Your task to perform on an android device: Open calendar and show me the second week of next month Image 0: 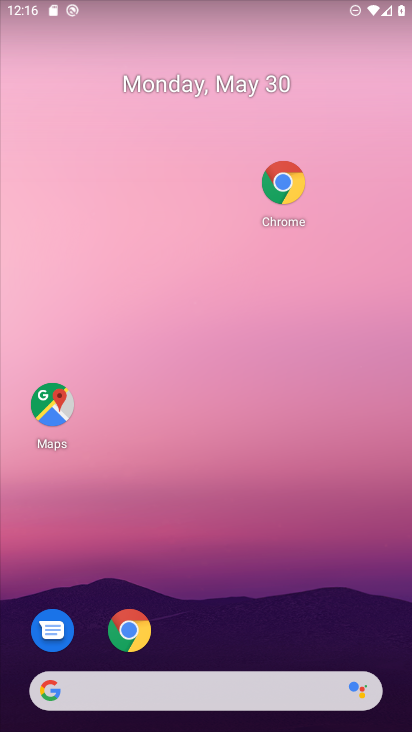
Step 0: drag from (287, 683) to (161, 216)
Your task to perform on an android device: Open calendar and show me the second week of next month Image 1: 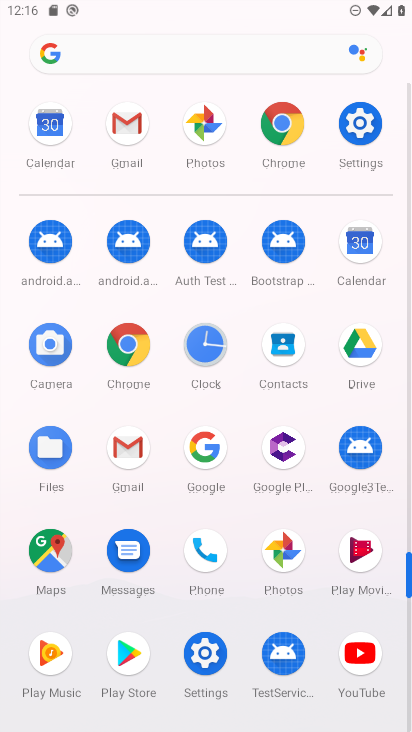
Step 1: click (366, 245)
Your task to perform on an android device: Open calendar and show me the second week of next month Image 2: 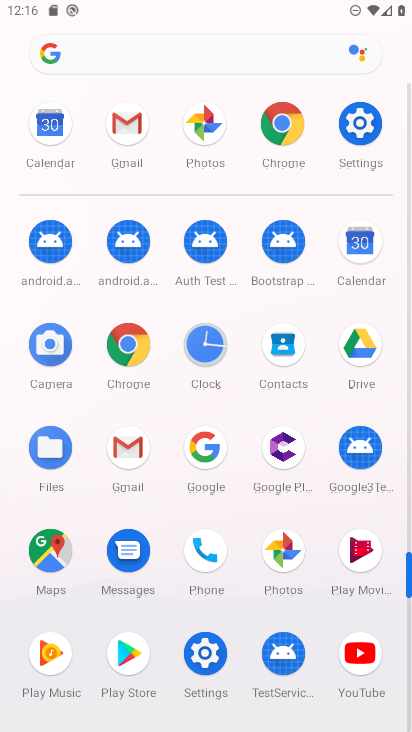
Step 2: click (365, 244)
Your task to perform on an android device: Open calendar and show me the second week of next month Image 3: 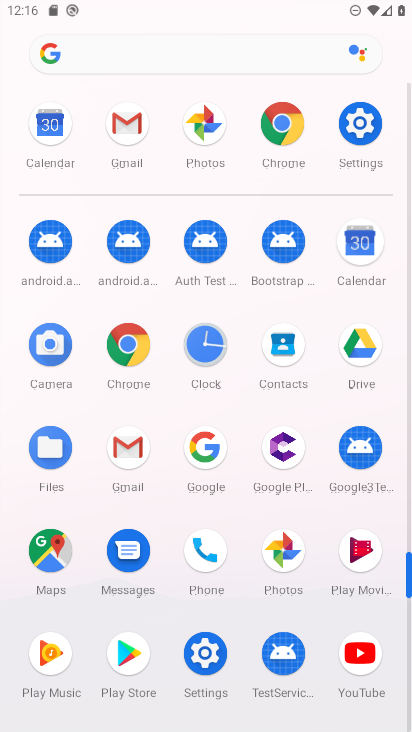
Step 3: click (356, 244)
Your task to perform on an android device: Open calendar and show me the second week of next month Image 4: 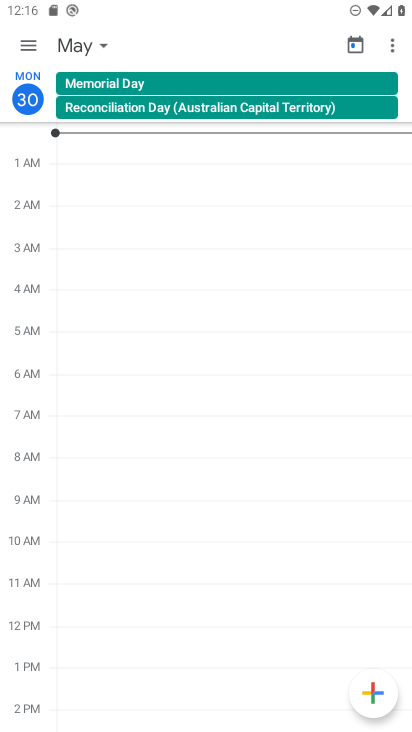
Step 4: click (110, 47)
Your task to perform on an android device: Open calendar and show me the second week of next month Image 5: 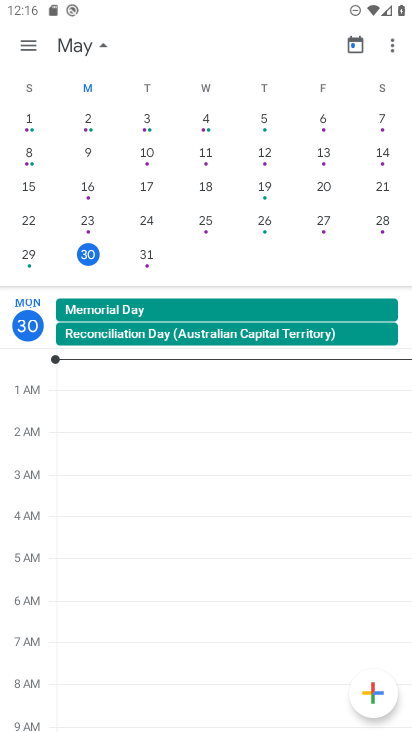
Step 5: drag from (298, 176) to (8, 196)
Your task to perform on an android device: Open calendar and show me the second week of next month Image 6: 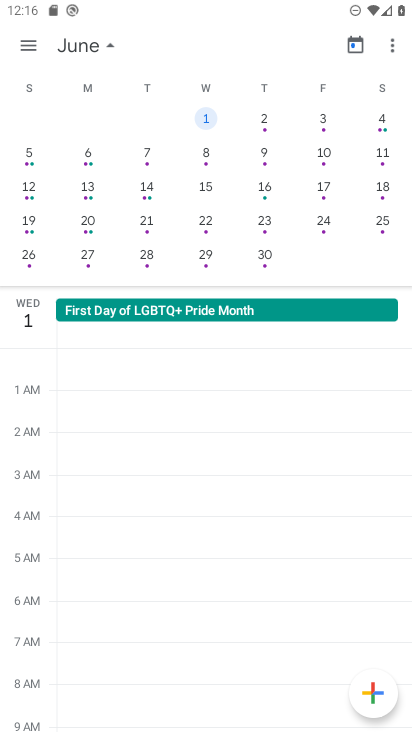
Step 6: click (207, 152)
Your task to perform on an android device: Open calendar and show me the second week of next month Image 7: 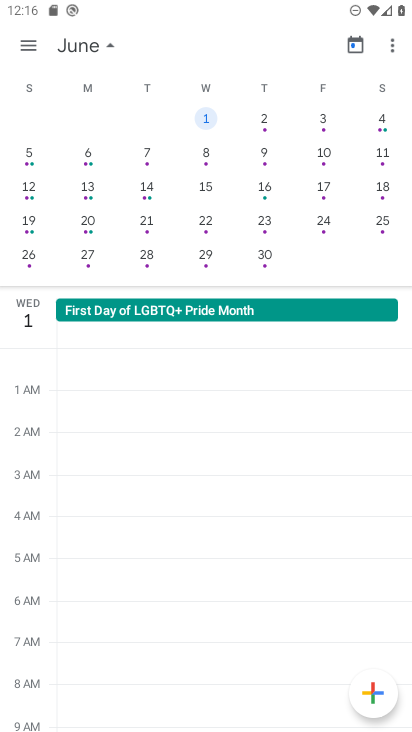
Step 7: click (207, 152)
Your task to perform on an android device: Open calendar and show me the second week of next month Image 8: 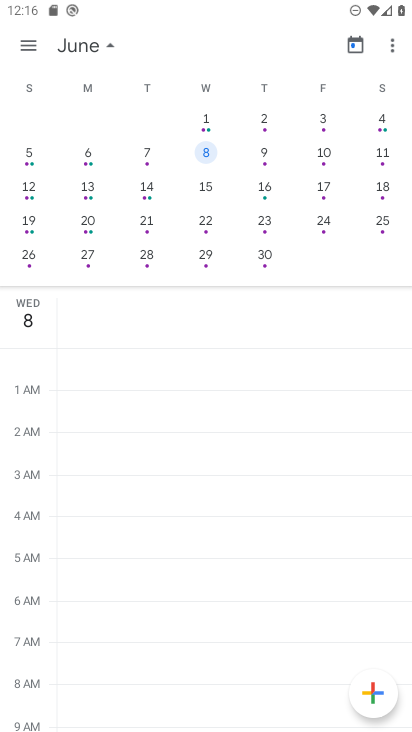
Step 8: click (208, 152)
Your task to perform on an android device: Open calendar and show me the second week of next month Image 9: 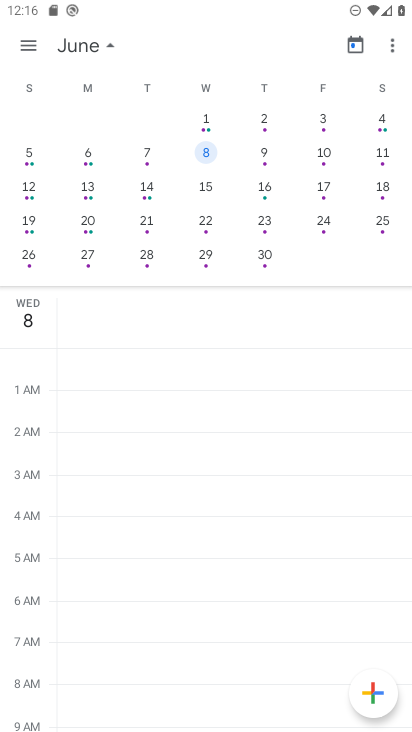
Step 9: task complete